Your task to perform on an android device: clear all cookies in the chrome app Image 0: 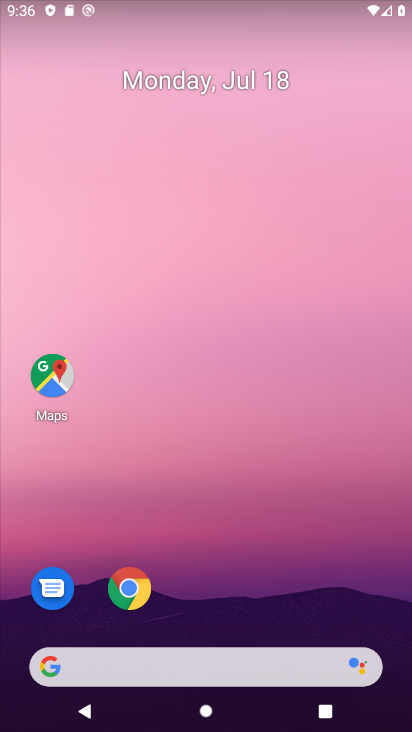
Step 0: click (124, 591)
Your task to perform on an android device: clear all cookies in the chrome app Image 1: 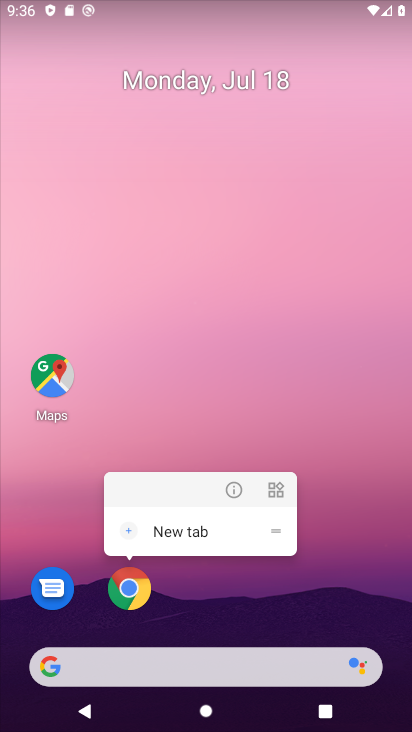
Step 1: click (159, 530)
Your task to perform on an android device: clear all cookies in the chrome app Image 2: 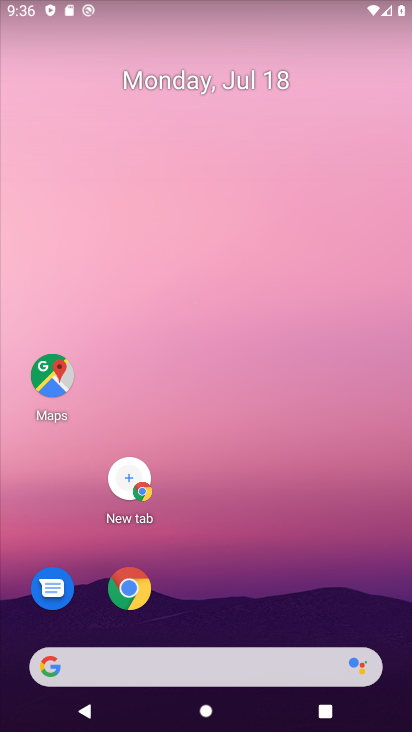
Step 2: click (131, 478)
Your task to perform on an android device: clear all cookies in the chrome app Image 3: 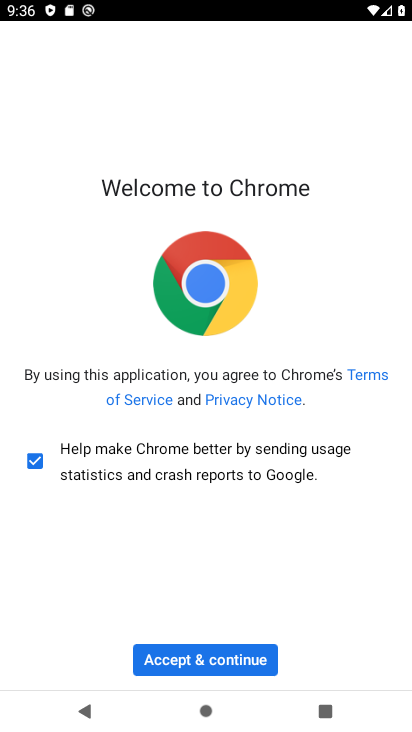
Step 3: click (151, 658)
Your task to perform on an android device: clear all cookies in the chrome app Image 4: 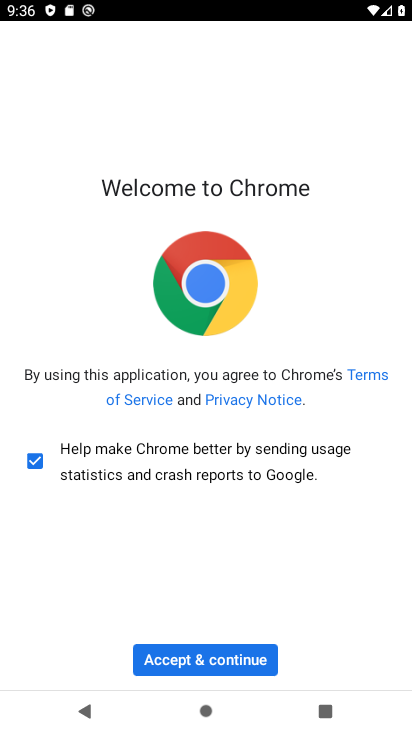
Step 4: click (151, 658)
Your task to perform on an android device: clear all cookies in the chrome app Image 5: 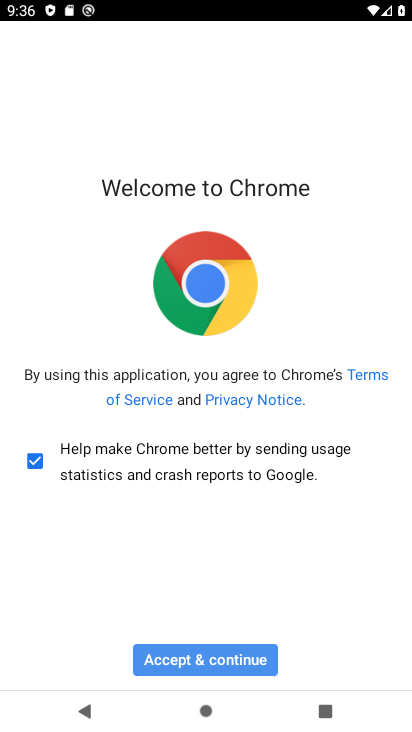
Step 5: click (151, 658)
Your task to perform on an android device: clear all cookies in the chrome app Image 6: 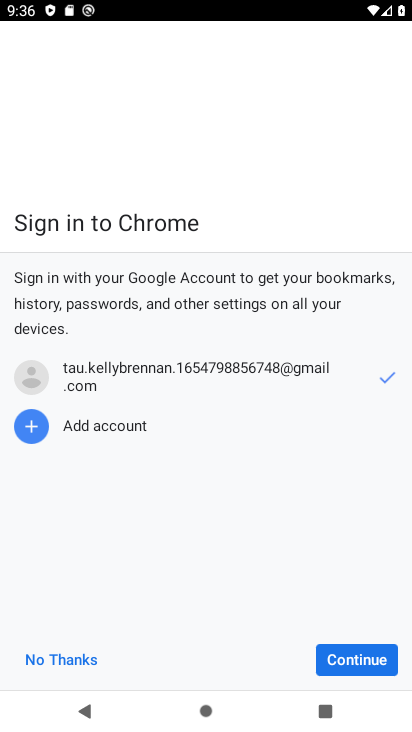
Step 6: click (151, 658)
Your task to perform on an android device: clear all cookies in the chrome app Image 7: 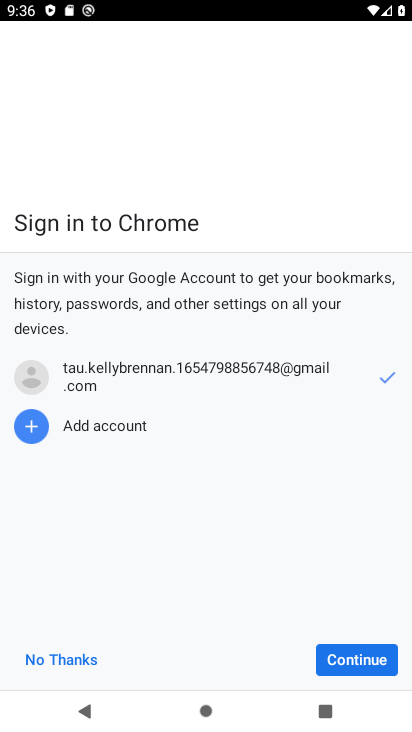
Step 7: click (151, 658)
Your task to perform on an android device: clear all cookies in the chrome app Image 8: 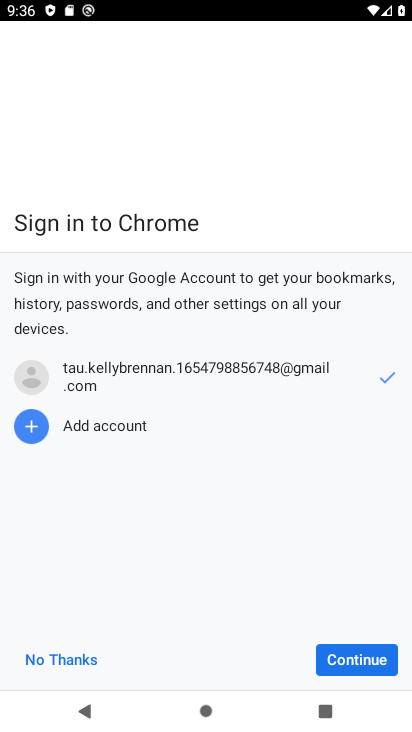
Step 8: click (151, 658)
Your task to perform on an android device: clear all cookies in the chrome app Image 9: 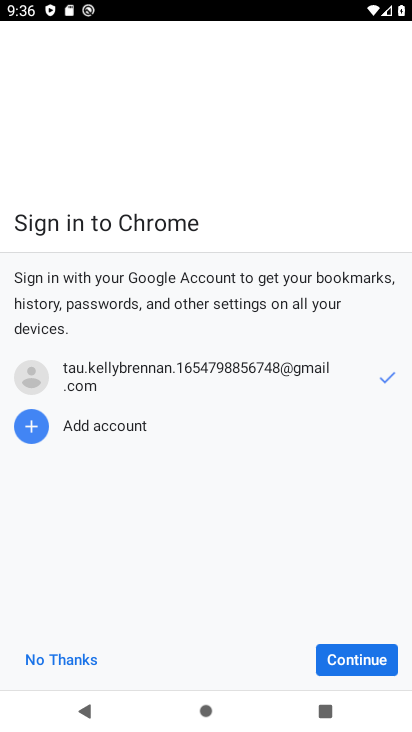
Step 9: click (377, 662)
Your task to perform on an android device: clear all cookies in the chrome app Image 10: 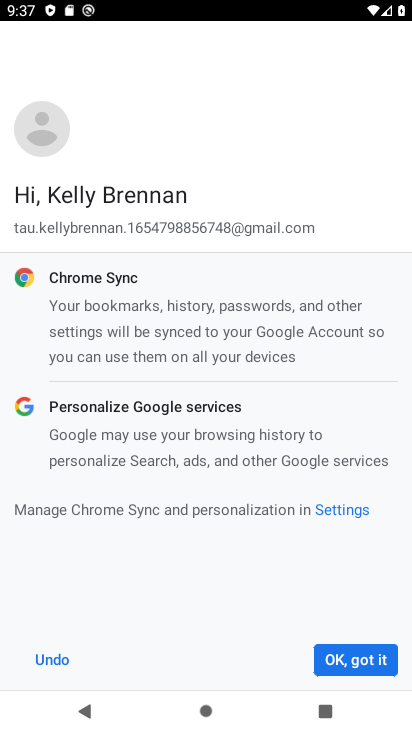
Step 10: click (368, 658)
Your task to perform on an android device: clear all cookies in the chrome app Image 11: 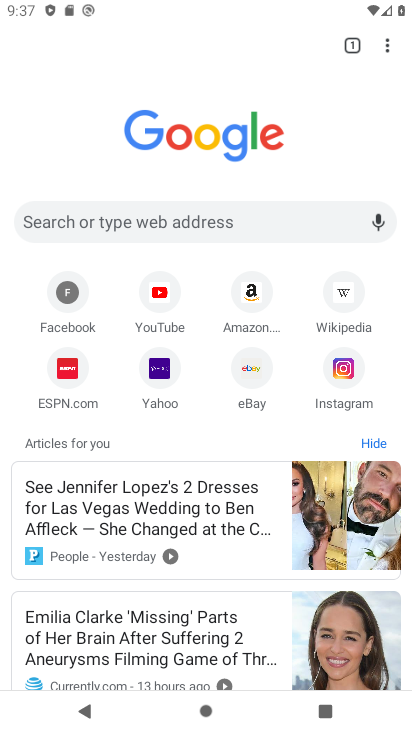
Step 11: click (394, 46)
Your task to perform on an android device: clear all cookies in the chrome app Image 12: 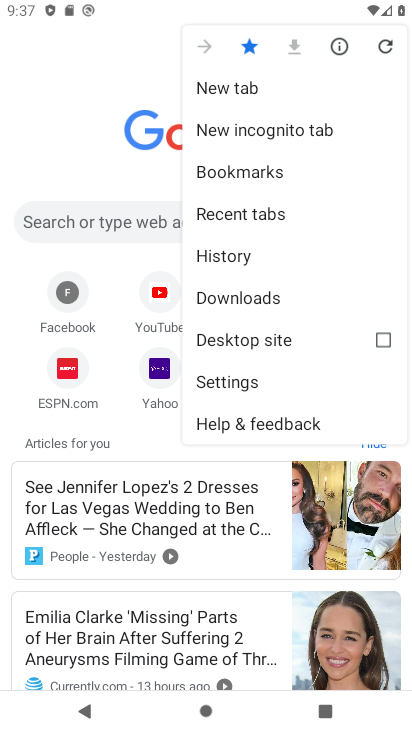
Step 12: click (271, 383)
Your task to perform on an android device: clear all cookies in the chrome app Image 13: 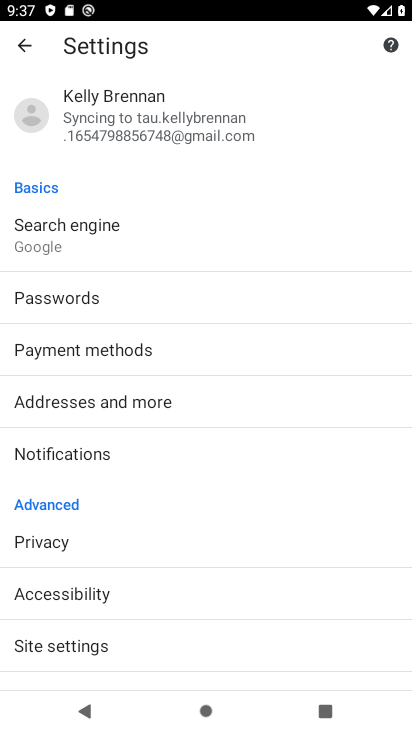
Step 13: drag from (127, 597) to (265, 145)
Your task to perform on an android device: clear all cookies in the chrome app Image 14: 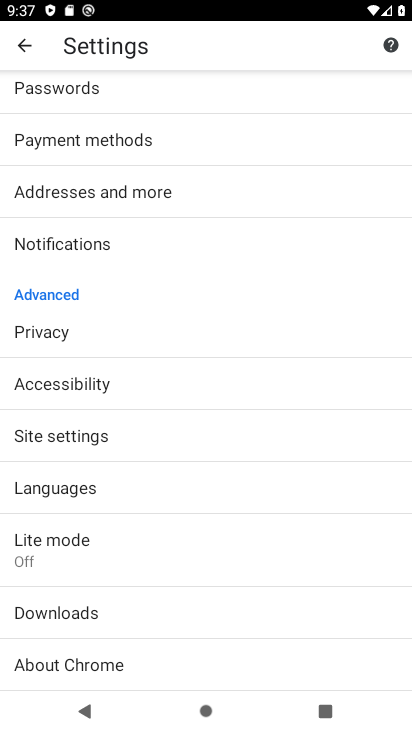
Step 14: drag from (112, 651) to (194, 116)
Your task to perform on an android device: clear all cookies in the chrome app Image 15: 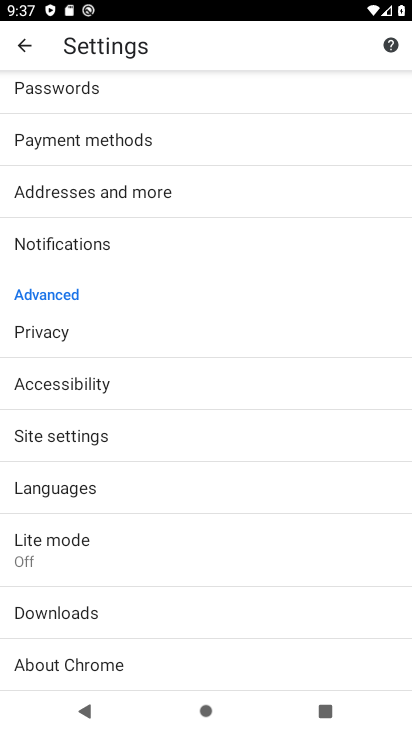
Step 15: click (23, 50)
Your task to perform on an android device: clear all cookies in the chrome app Image 16: 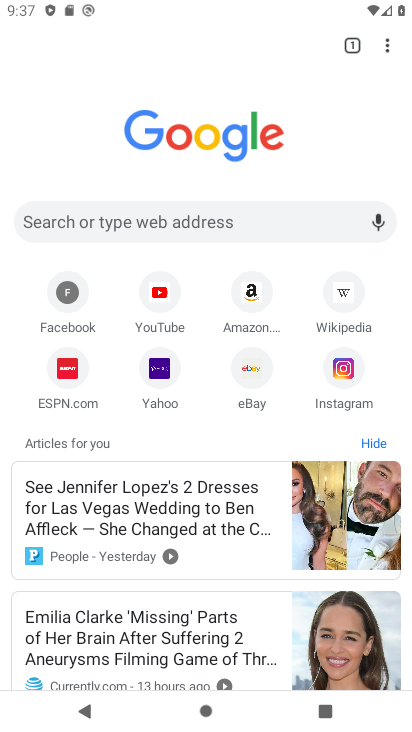
Step 16: click (392, 44)
Your task to perform on an android device: clear all cookies in the chrome app Image 17: 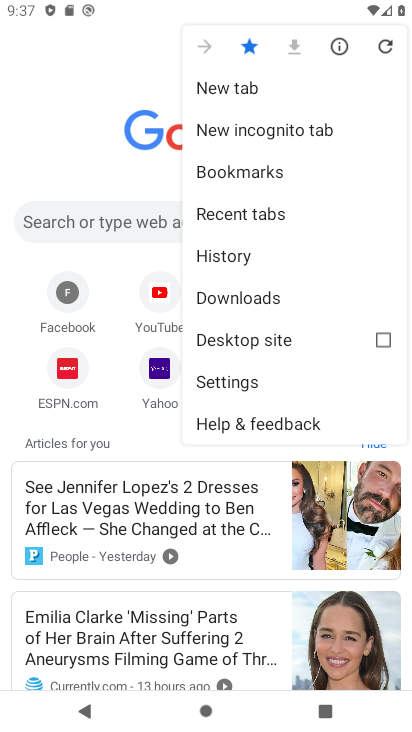
Step 17: click (217, 264)
Your task to perform on an android device: clear all cookies in the chrome app Image 18: 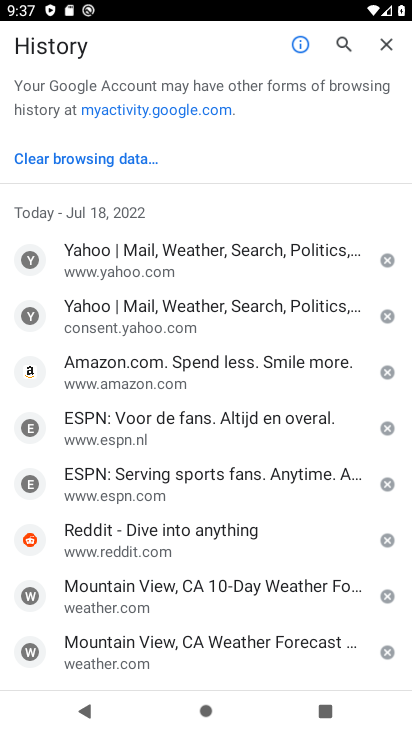
Step 18: click (134, 154)
Your task to perform on an android device: clear all cookies in the chrome app Image 19: 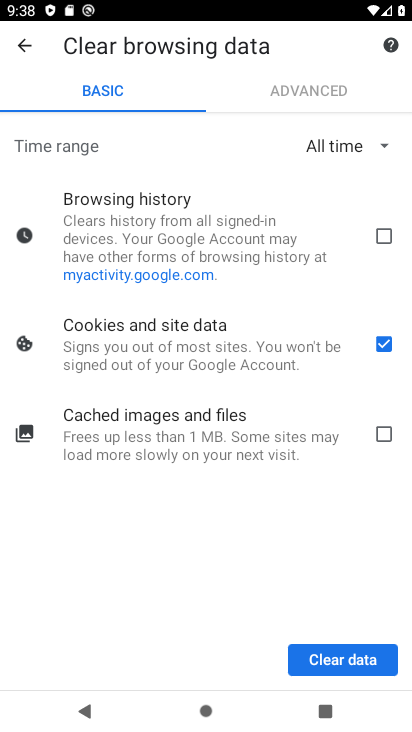
Step 19: click (390, 658)
Your task to perform on an android device: clear all cookies in the chrome app Image 20: 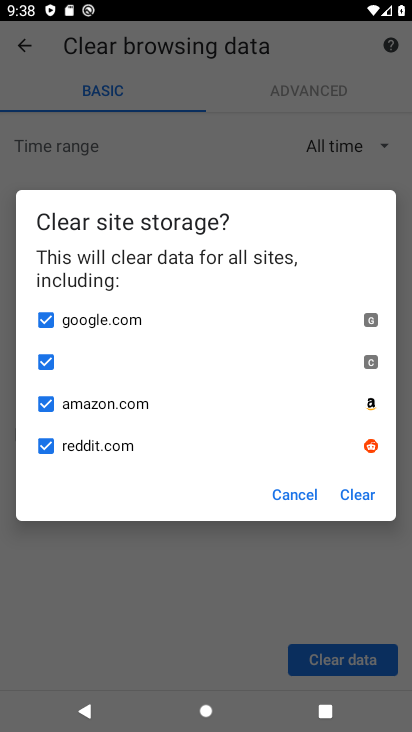
Step 20: click (361, 501)
Your task to perform on an android device: clear all cookies in the chrome app Image 21: 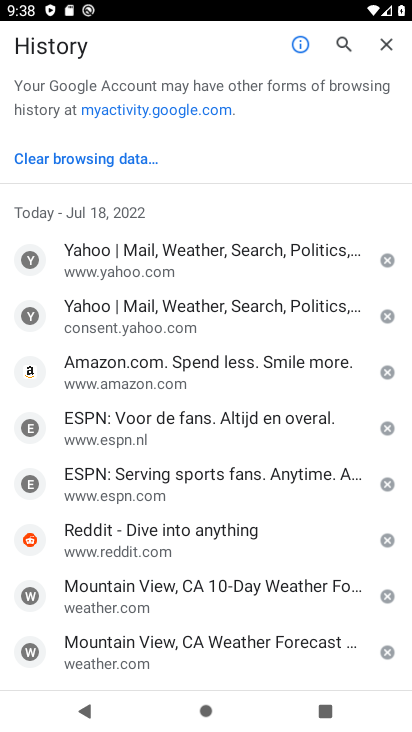
Step 21: task complete